Your task to perform on an android device: Search for pizza restaurants on Maps Image 0: 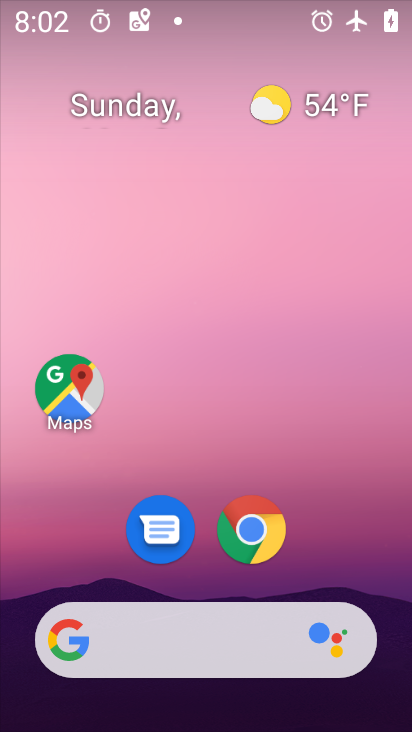
Step 0: click (77, 381)
Your task to perform on an android device: Search for pizza restaurants on Maps Image 1: 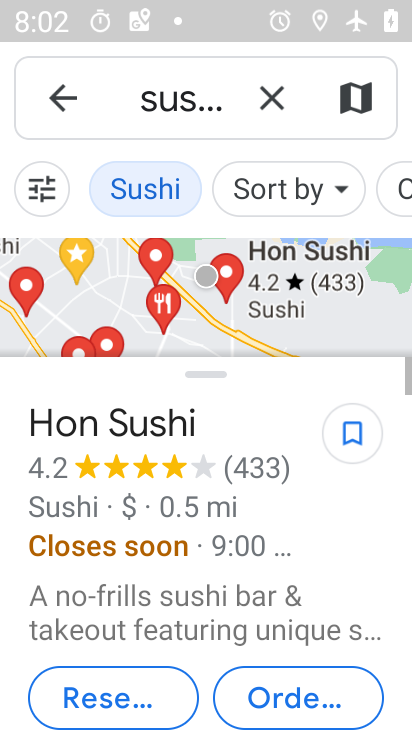
Step 1: click (274, 94)
Your task to perform on an android device: Search for pizza restaurants on Maps Image 2: 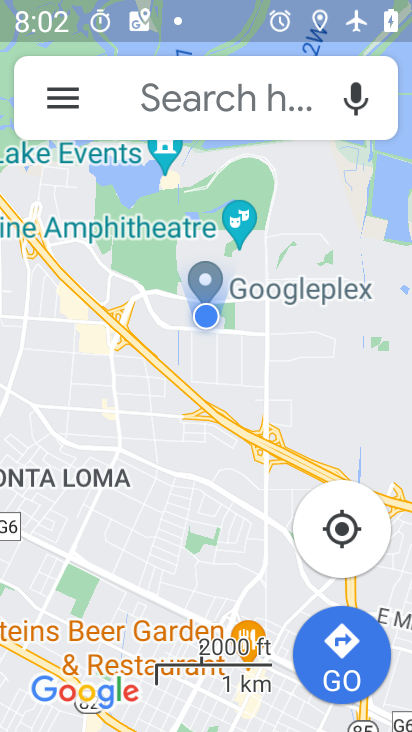
Step 2: click (226, 93)
Your task to perform on an android device: Search for pizza restaurants on Maps Image 3: 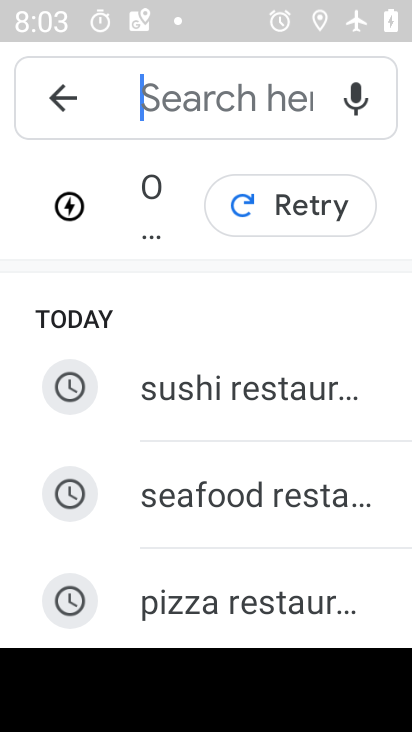
Step 3: type "Pizza restaurants"
Your task to perform on an android device: Search for pizza restaurants on Maps Image 4: 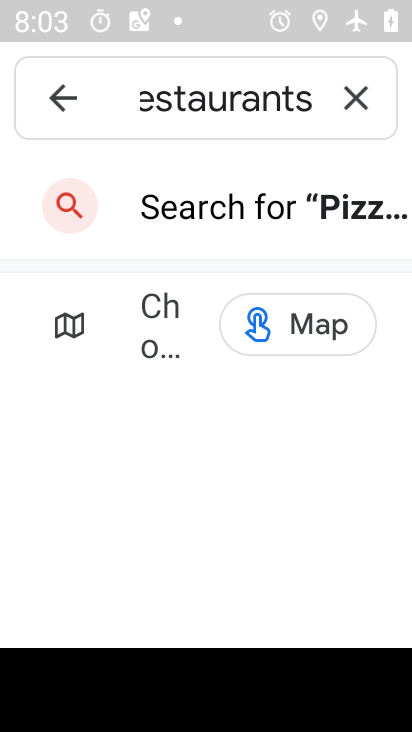
Step 4: click (282, 215)
Your task to perform on an android device: Search for pizza restaurants on Maps Image 5: 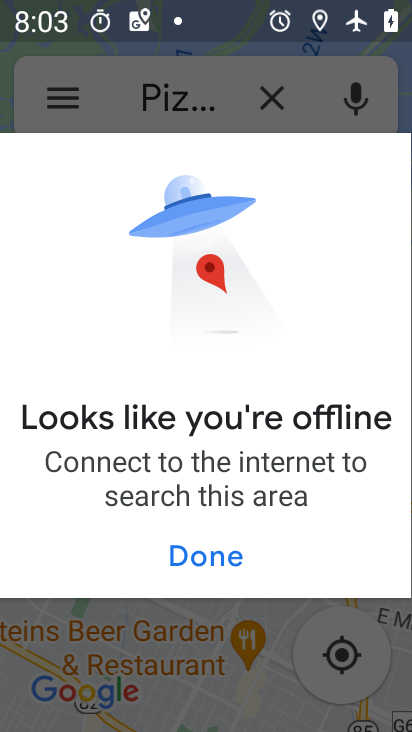
Step 5: click (209, 577)
Your task to perform on an android device: Search for pizza restaurants on Maps Image 6: 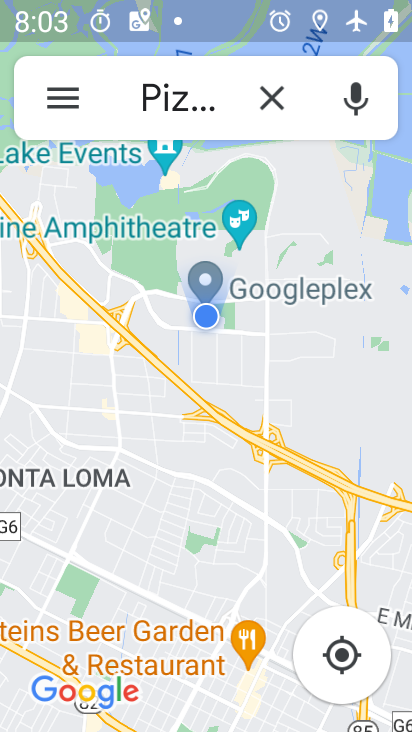
Step 6: task complete